Your task to perform on an android device: Go to location settings Image 0: 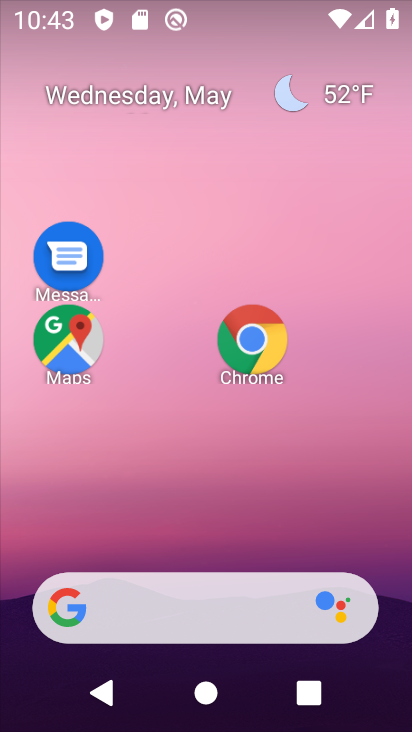
Step 0: drag from (198, 570) to (159, 68)
Your task to perform on an android device: Go to location settings Image 1: 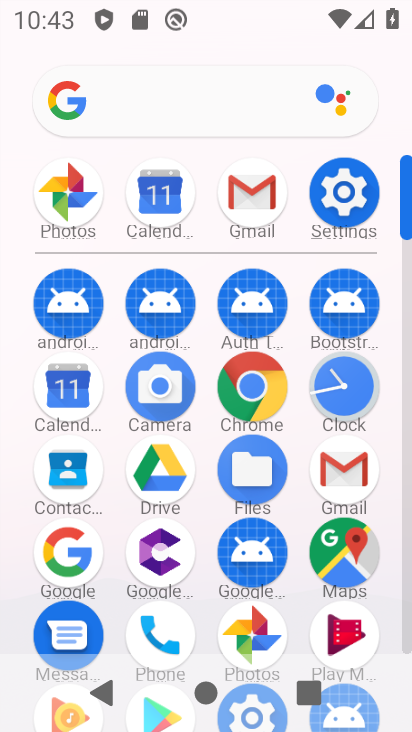
Step 1: click (338, 196)
Your task to perform on an android device: Go to location settings Image 2: 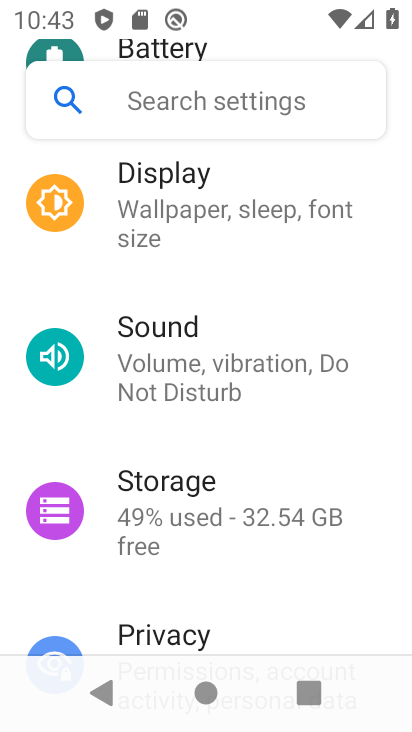
Step 2: drag from (252, 531) to (233, 212)
Your task to perform on an android device: Go to location settings Image 3: 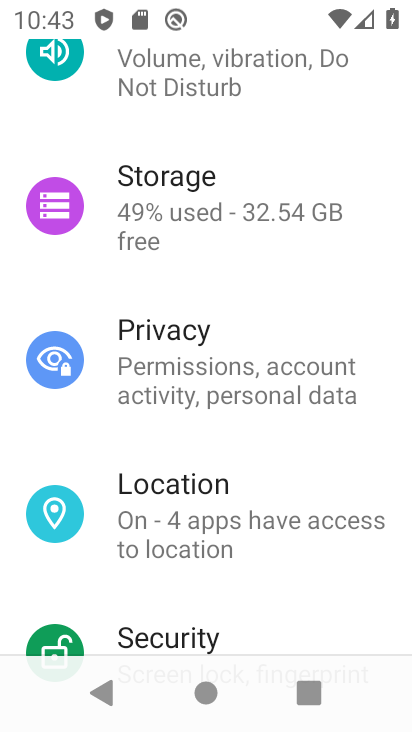
Step 3: click (208, 491)
Your task to perform on an android device: Go to location settings Image 4: 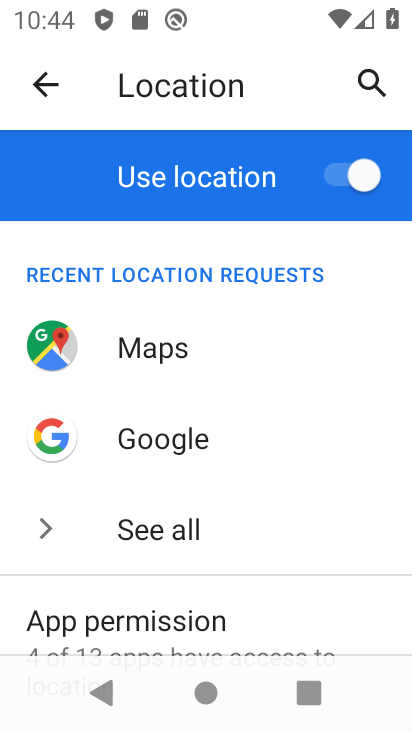
Step 4: task complete